Your task to perform on an android device: open a bookmark in the chrome app Image 0: 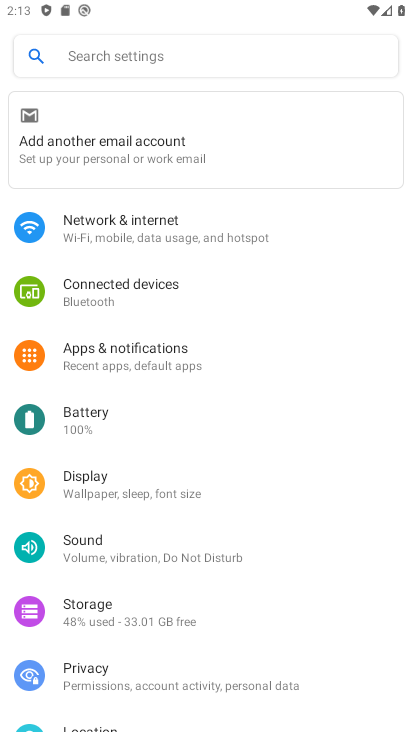
Step 0: press home button
Your task to perform on an android device: open a bookmark in the chrome app Image 1: 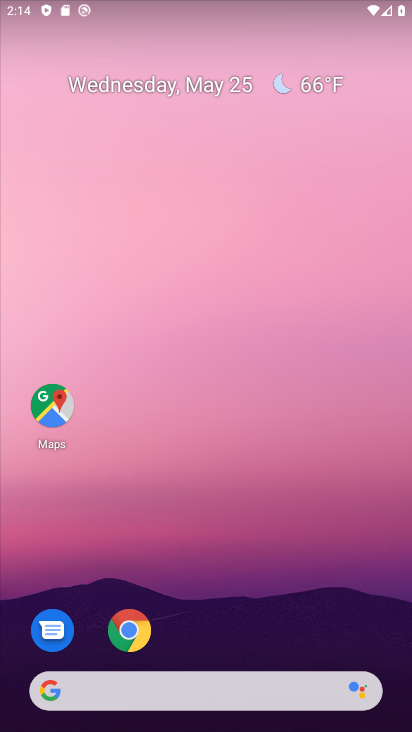
Step 1: drag from (232, 652) to (288, 75)
Your task to perform on an android device: open a bookmark in the chrome app Image 2: 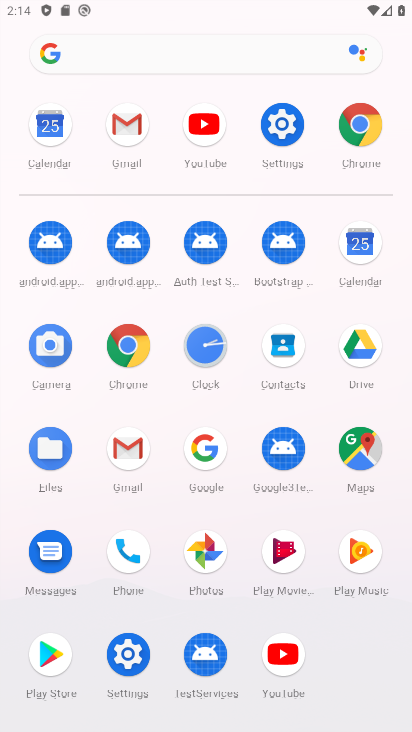
Step 2: click (124, 348)
Your task to perform on an android device: open a bookmark in the chrome app Image 3: 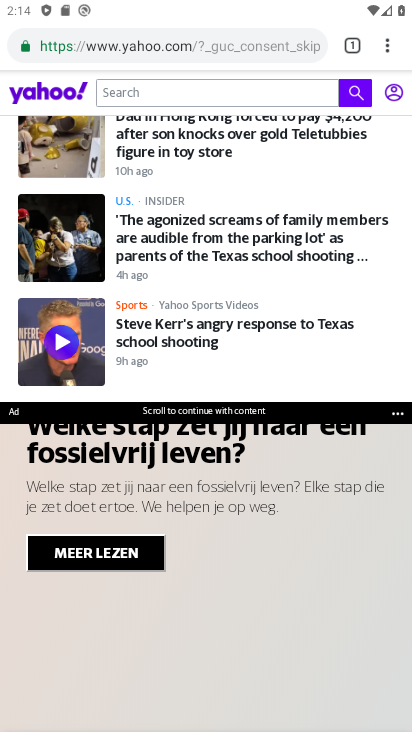
Step 3: click (381, 43)
Your task to perform on an android device: open a bookmark in the chrome app Image 4: 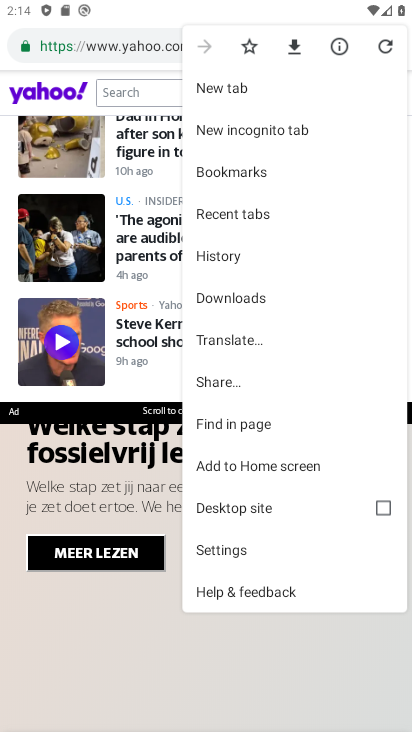
Step 4: click (272, 170)
Your task to perform on an android device: open a bookmark in the chrome app Image 5: 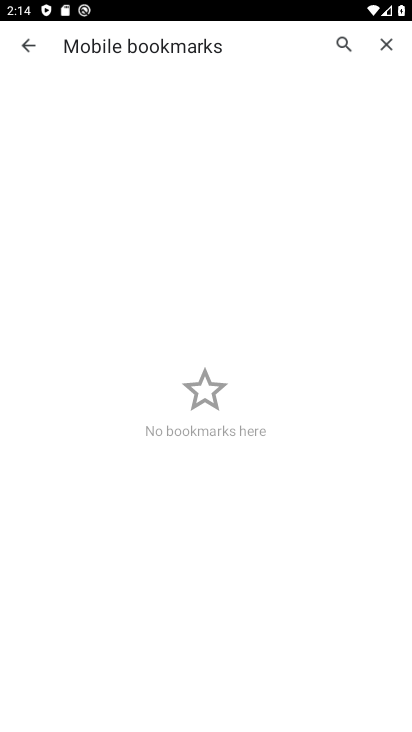
Step 5: task complete